Your task to perform on an android device: change the upload size in google photos Image 0: 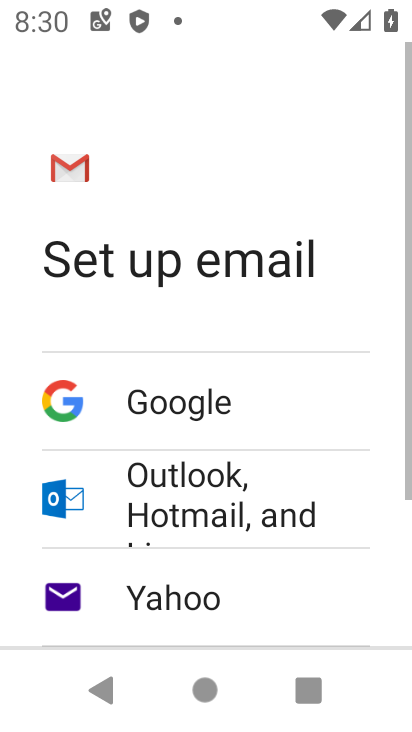
Step 0: press home button
Your task to perform on an android device: change the upload size in google photos Image 1: 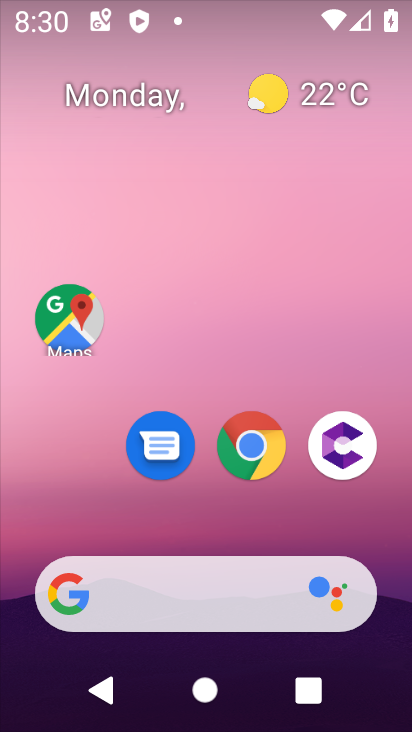
Step 1: drag from (217, 369) to (176, 53)
Your task to perform on an android device: change the upload size in google photos Image 2: 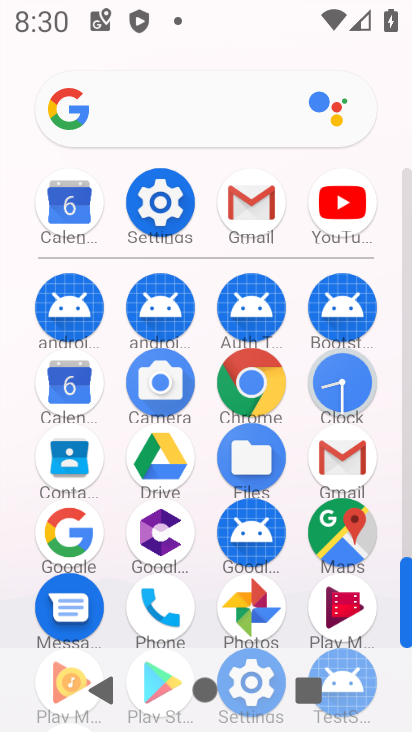
Step 2: click (262, 591)
Your task to perform on an android device: change the upload size in google photos Image 3: 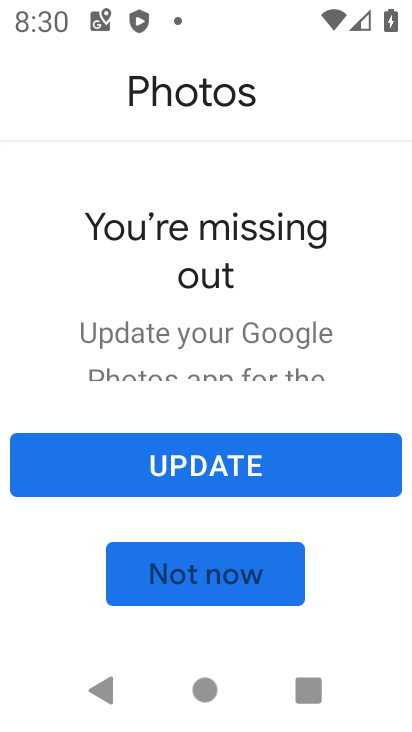
Step 3: click (262, 484)
Your task to perform on an android device: change the upload size in google photos Image 4: 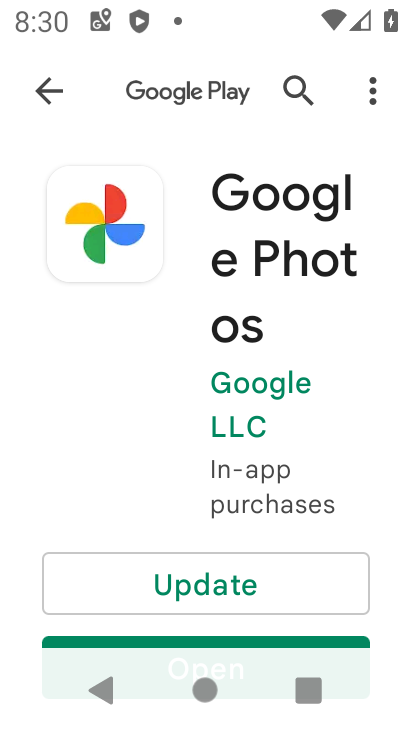
Step 4: click (248, 561)
Your task to perform on an android device: change the upload size in google photos Image 5: 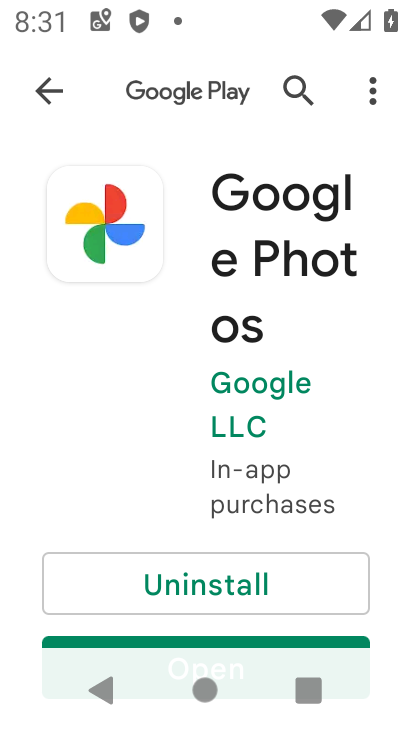
Step 5: drag from (385, 551) to (367, 347)
Your task to perform on an android device: change the upload size in google photos Image 6: 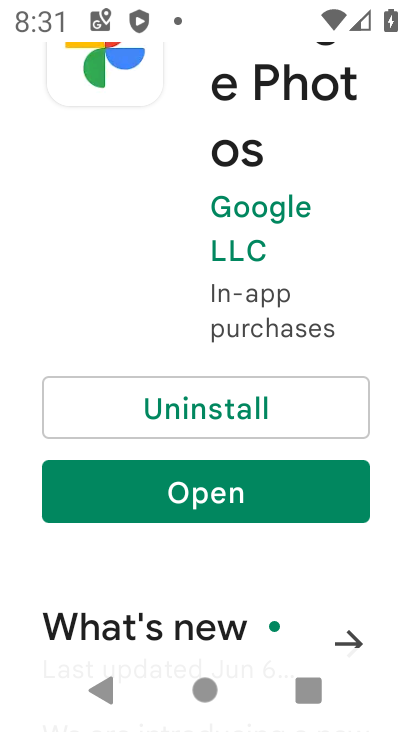
Step 6: click (274, 481)
Your task to perform on an android device: change the upload size in google photos Image 7: 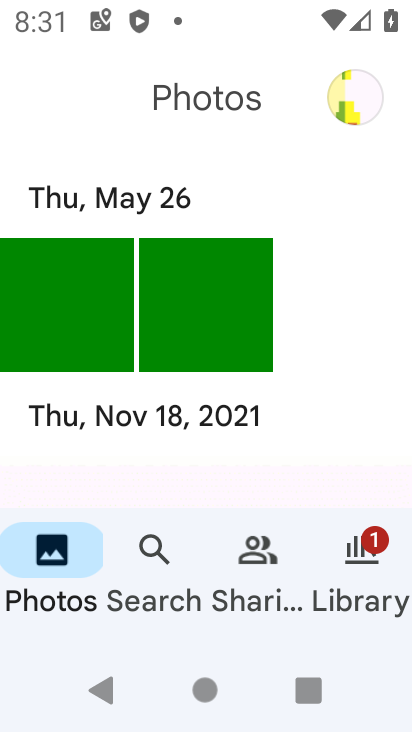
Step 7: click (367, 96)
Your task to perform on an android device: change the upload size in google photos Image 8: 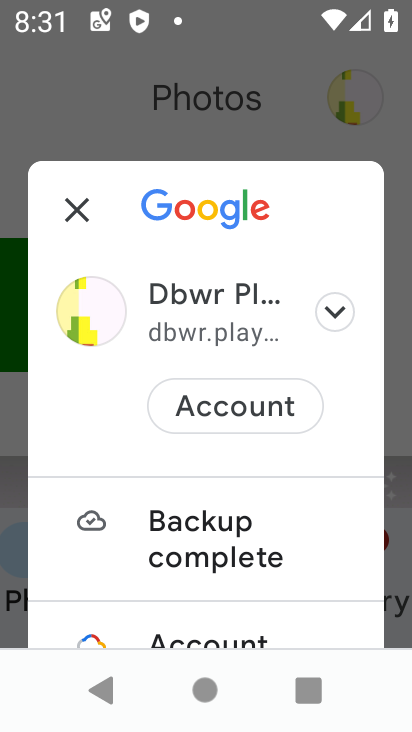
Step 8: click (134, 302)
Your task to perform on an android device: change the upload size in google photos Image 9: 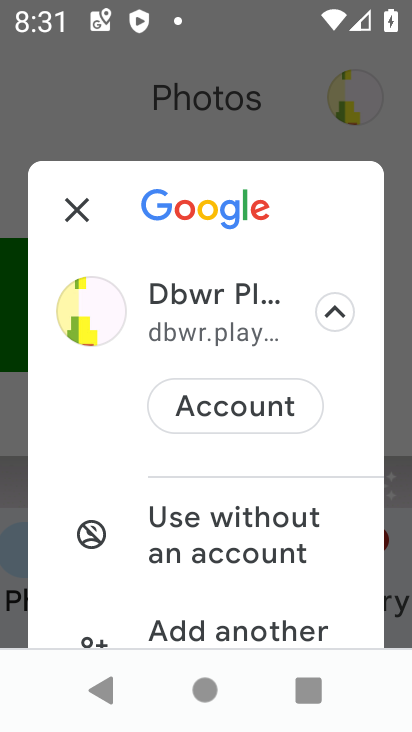
Step 9: click (135, 301)
Your task to perform on an android device: change the upload size in google photos Image 10: 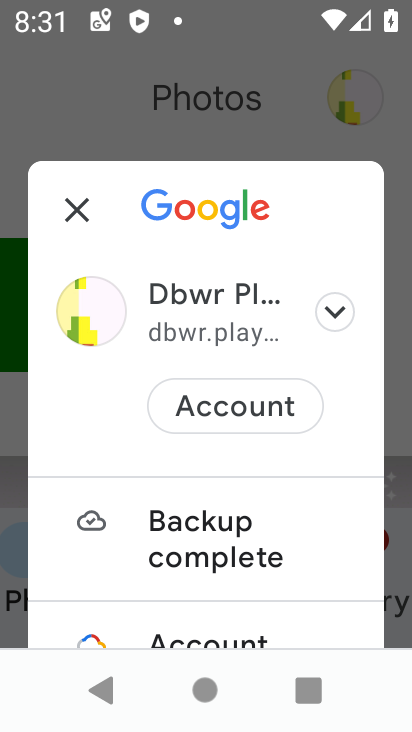
Step 10: drag from (111, 590) to (132, 153)
Your task to perform on an android device: change the upload size in google photos Image 11: 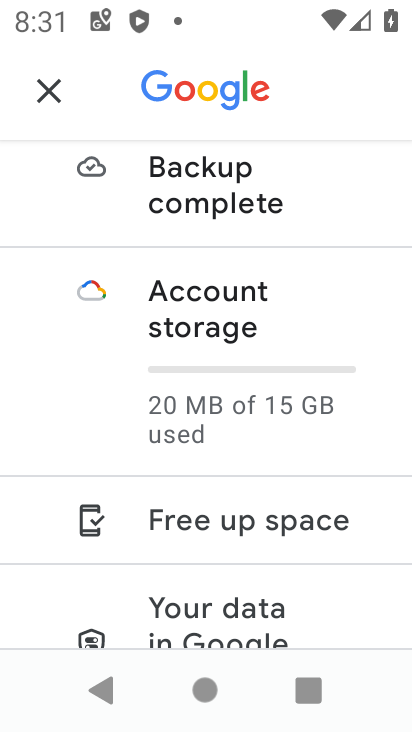
Step 11: drag from (55, 599) to (82, 193)
Your task to perform on an android device: change the upload size in google photos Image 12: 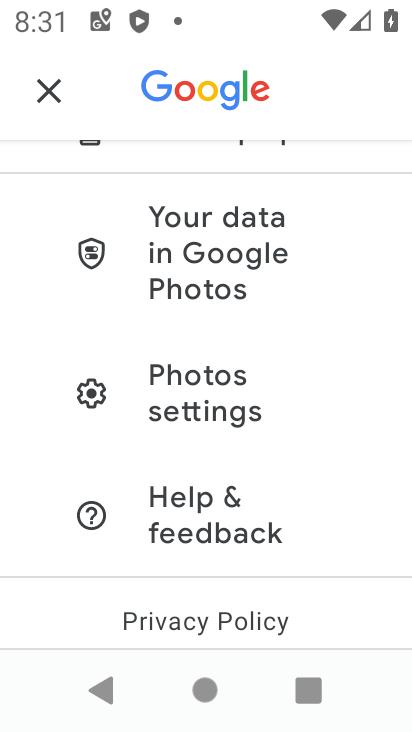
Step 12: click (201, 397)
Your task to perform on an android device: change the upload size in google photos Image 13: 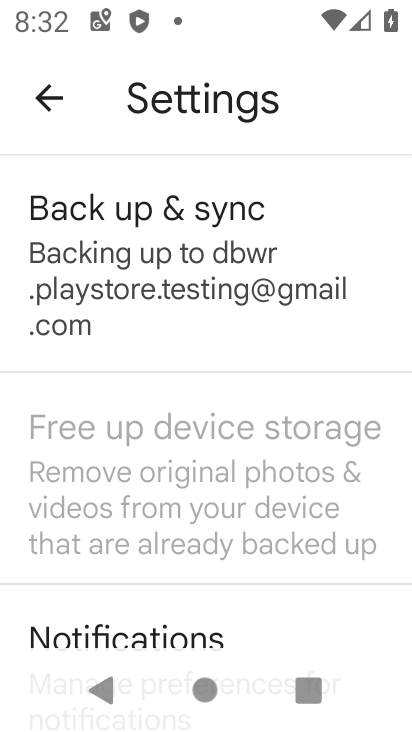
Step 13: click (199, 263)
Your task to perform on an android device: change the upload size in google photos Image 14: 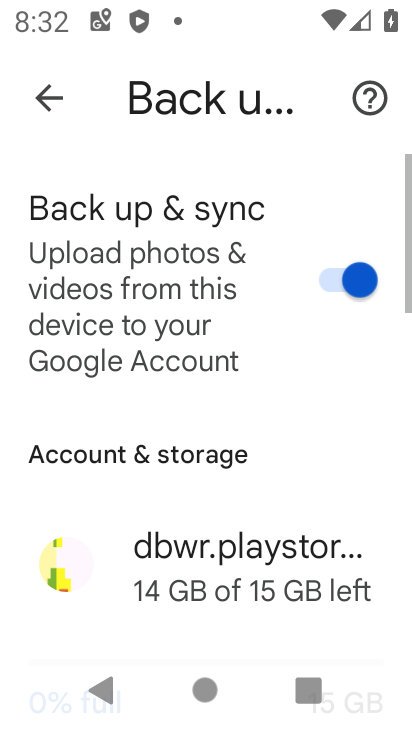
Step 14: drag from (32, 612) to (31, 269)
Your task to perform on an android device: change the upload size in google photos Image 15: 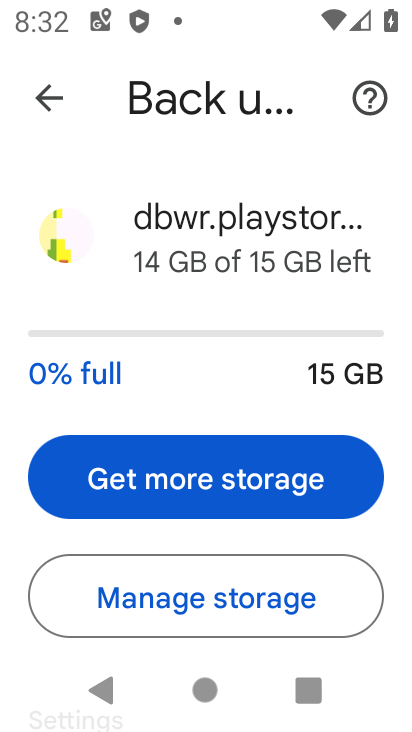
Step 15: drag from (28, 544) to (35, 285)
Your task to perform on an android device: change the upload size in google photos Image 16: 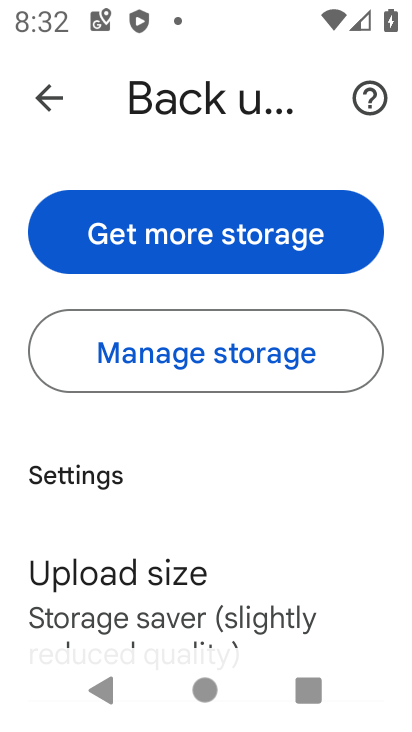
Step 16: click (89, 569)
Your task to perform on an android device: change the upload size in google photos Image 17: 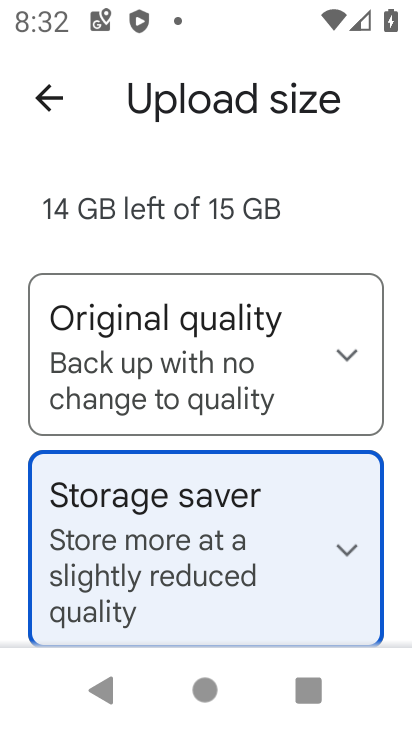
Step 17: click (260, 356)
Your task to perform on an android device: change the upload size in google photos Image 18: 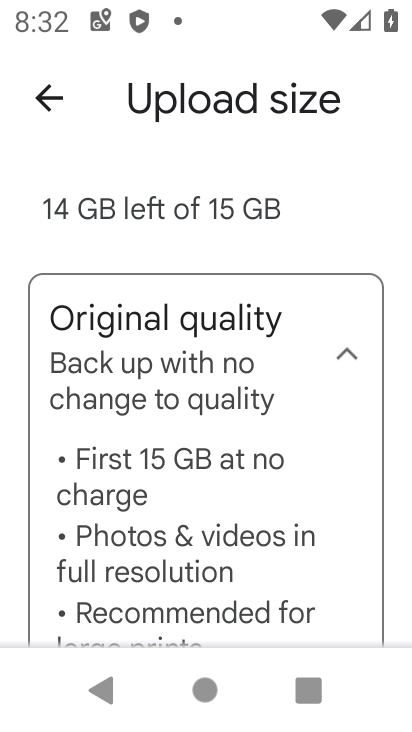
Step 18: task complete